Your task to perform on an android device: What's on my calendar today? Image 0: 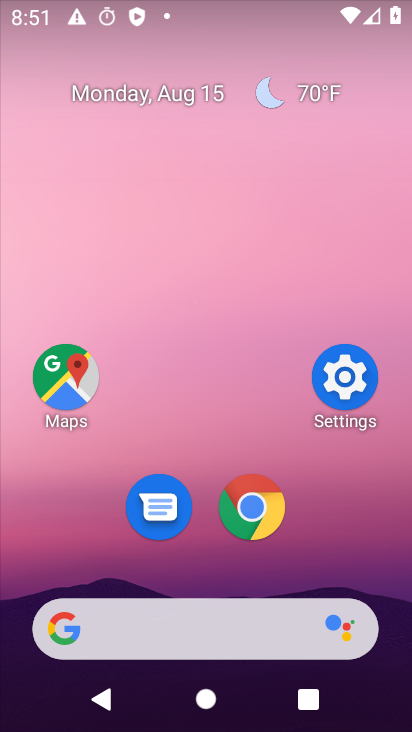
Step 0: drag from (221, 631) to (357, 134)
Your task to perform on an android device: What's on my calendar today? Image 1: 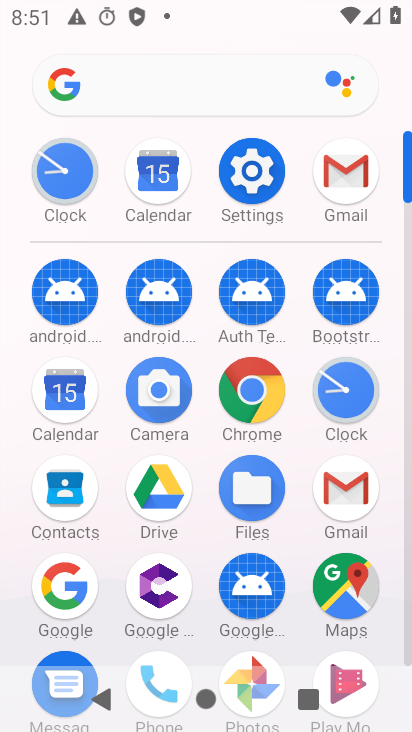
Step 1: click (69, 386)
Your task to perform on an android device: What's on my calendar today? Image 2: 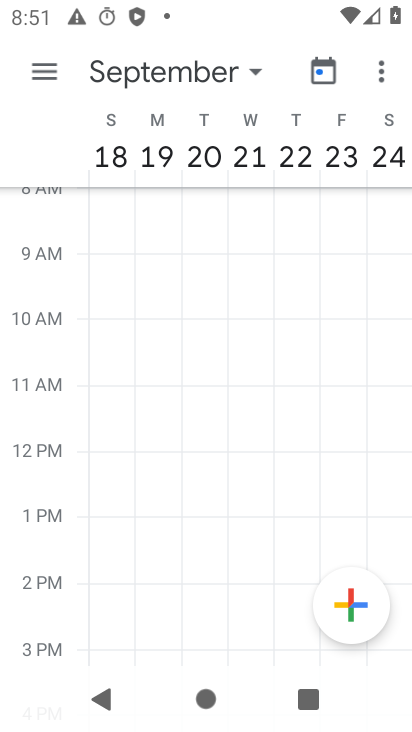
Step 2: click (153, 73)
Your task to perform on an android device: What's on my calendar today? Image 3: 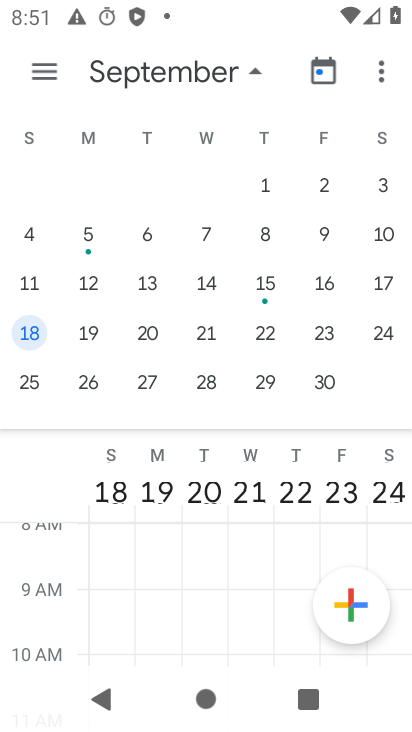
Step 3: drag from (66, 269) to (410, 314)
Your task to perform on an android device: What's on my calendar today? Image 4: 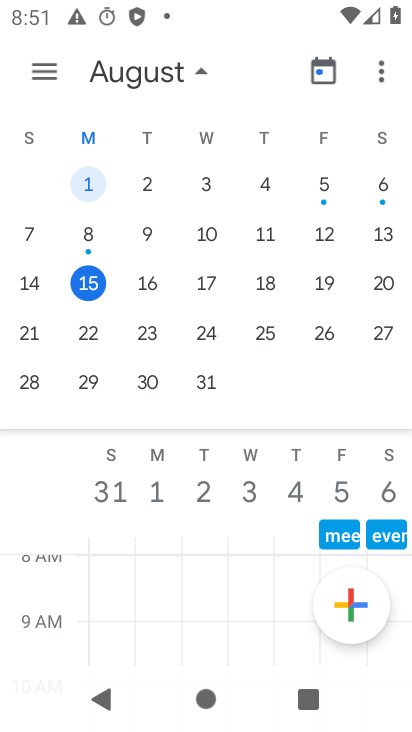
Step 4: click (89, 276)
Your task to perform on an android device: What's on my calendar today? Image 5: 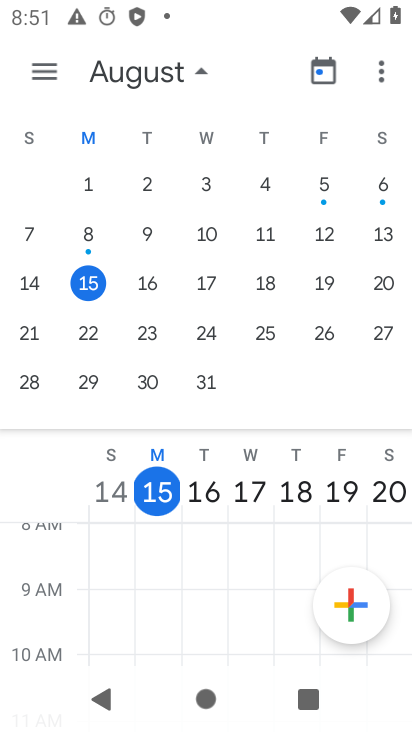
Step 5: click (38, 66)
Your task to perform on an android device: What's on my calendar today? Image 6: 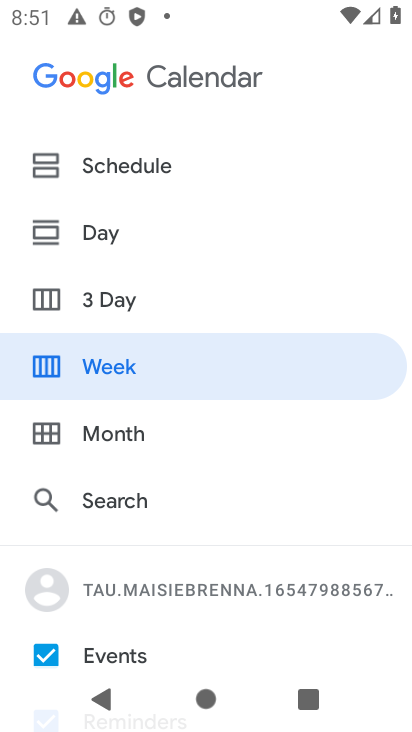
Step 6: click (105, 236)
Your task to perform on an android device: What's on my calendar today? Image 7: 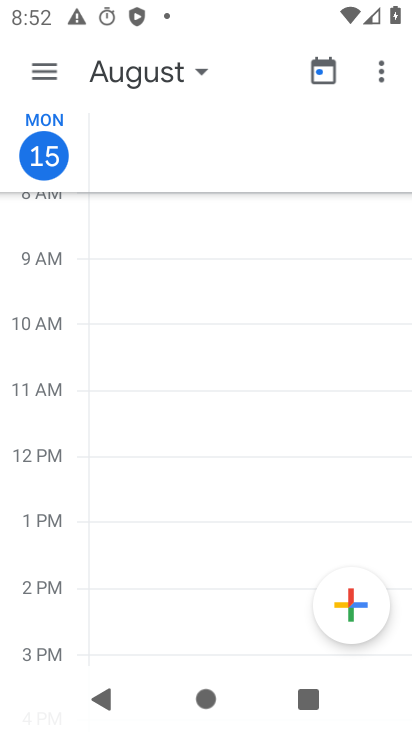
Step 7: click (49, 64)
Your task to perform on an android device: What's on my calendar today? Image 8: 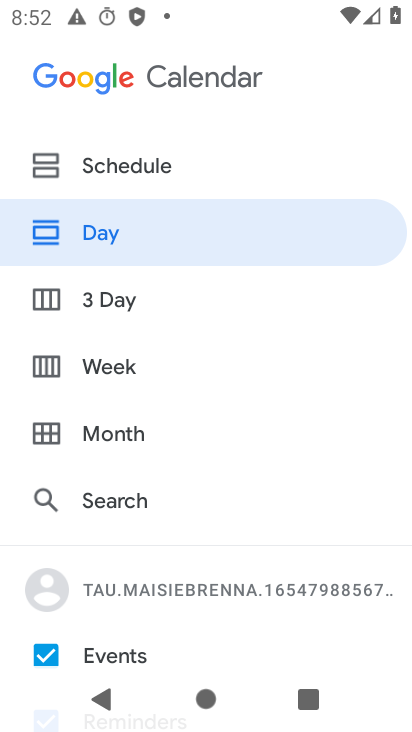
Step 8: click (139, 166)
Your task to perform on an android device: What's on my calendar today? Image 9: 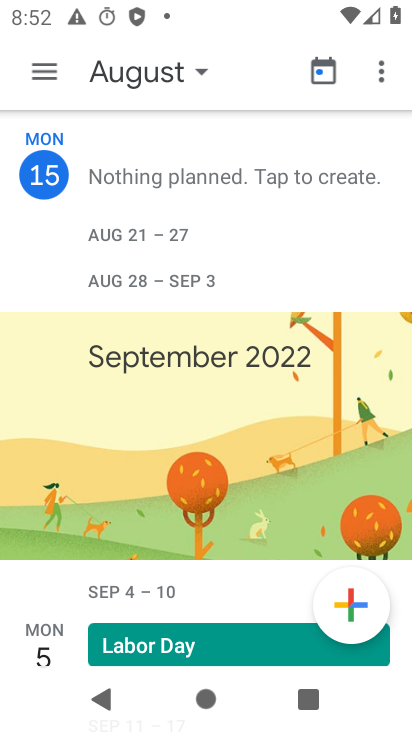
Step 9: task complete